Your task to perform on an android device: Go to privacy settings Image 0: 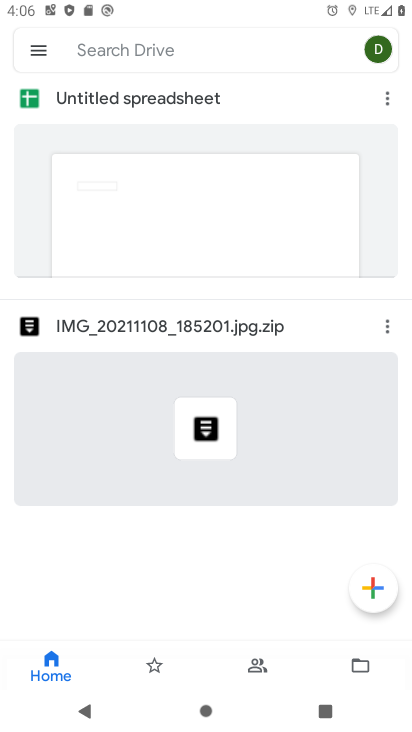
Step 0: press home button
Your task to perform on an android device: Go to privacy settings Image 1: 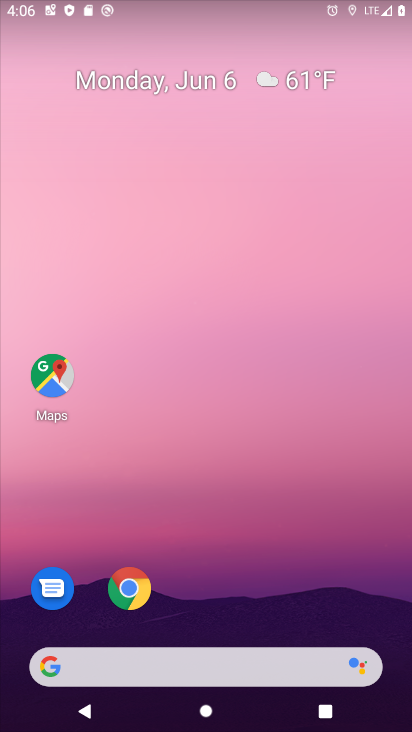
Step 1: drag from (226, 628) to (172, 266)
Your task to perform on an android device: Go to privacy settings Image 2: 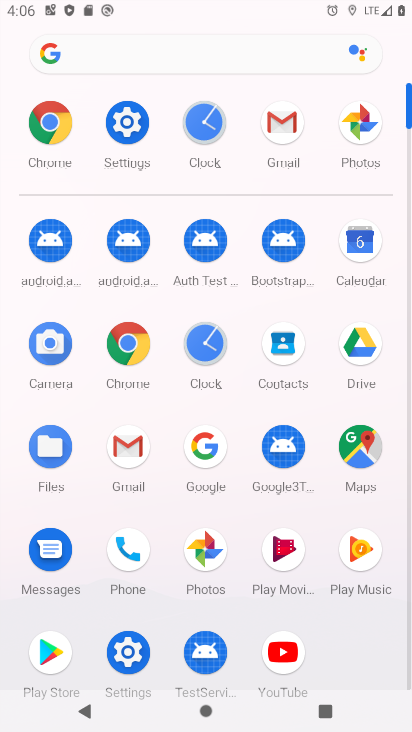
Step 2: click (142, 122)
Your task to perform on an android device: Go to privacy settings Image 3: 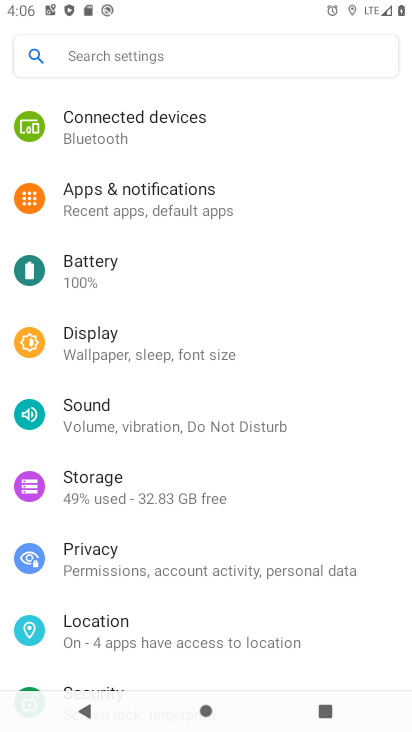
Step 3: click (175, 553)
Your task to perform on an android device: Go to privacy settings Image 4: 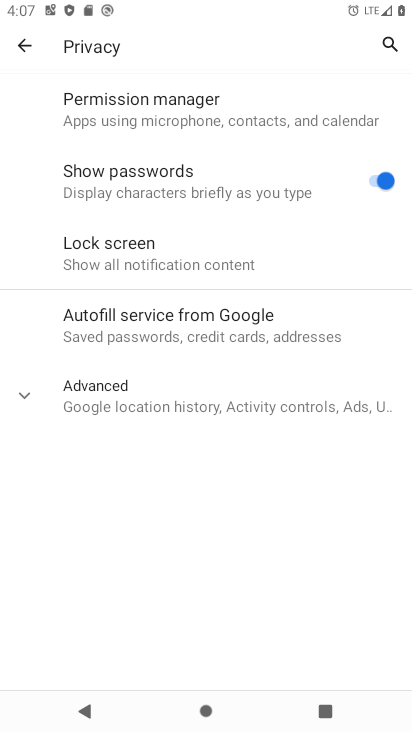
Step 4: task complete